Your task to perform on an android device: Is it going to rain tomorrow? Image 0: 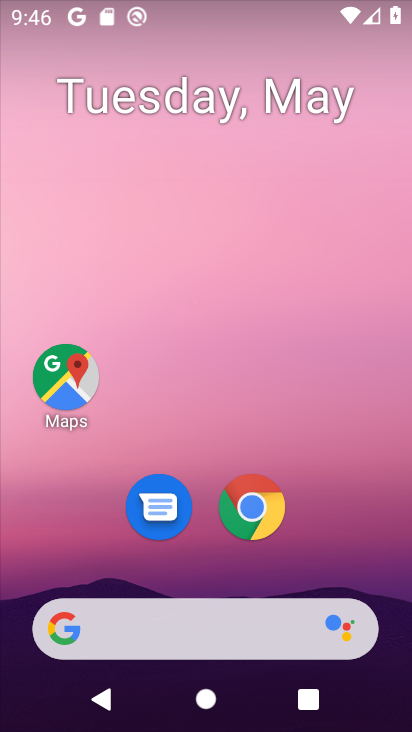
Step 0: click (172, 629)
Your task to perform on an android device: Is it going to rain tomorrow? Image 1: 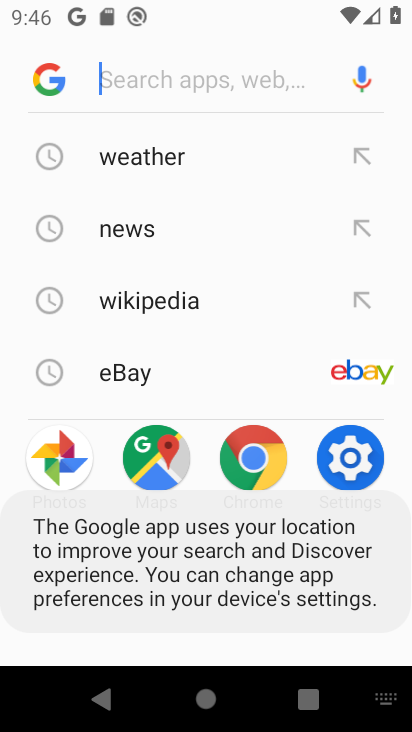
Step 1: click (194, 165)
Your task to perform on an android device: Is it going to rain tomorrow? Image 2: 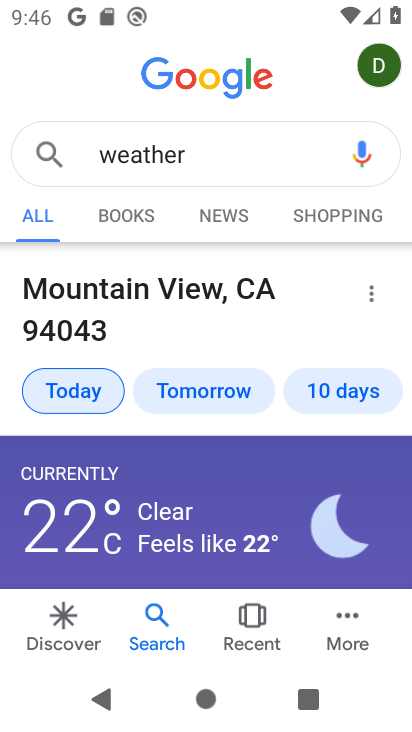
Step 2: click (190, 382)
Your task to perform on an android device: Is it going to rain tomorrow? Image 3: 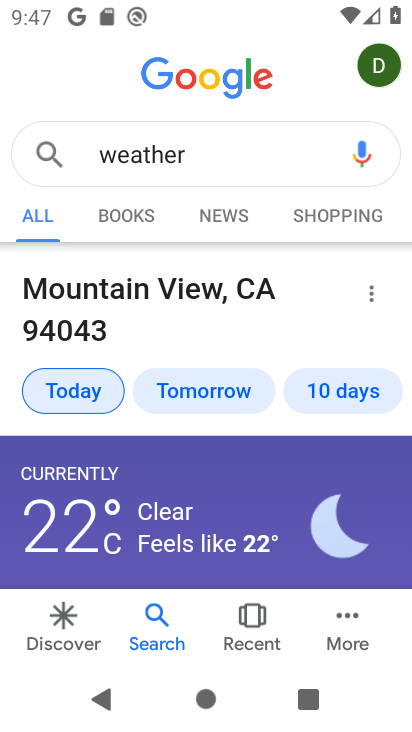
Step 3: click (194, 396)
Your task to perform on an android device: Is it going to rain tomorrow? Image 4: 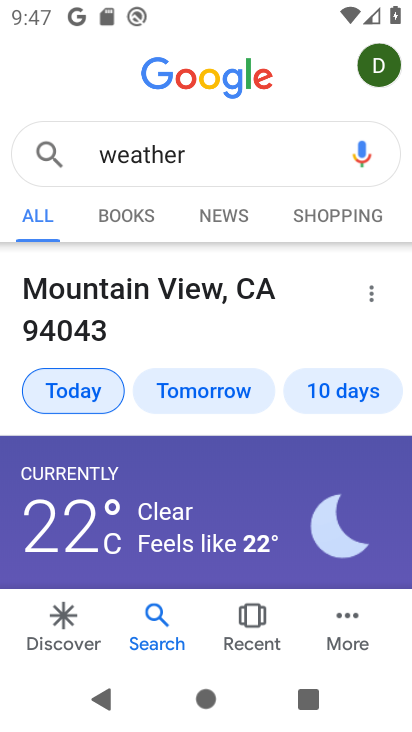
Step 4: click (194, 396)
Your task to perform on an android device: Is it going to rain tomorrow? Image 5: 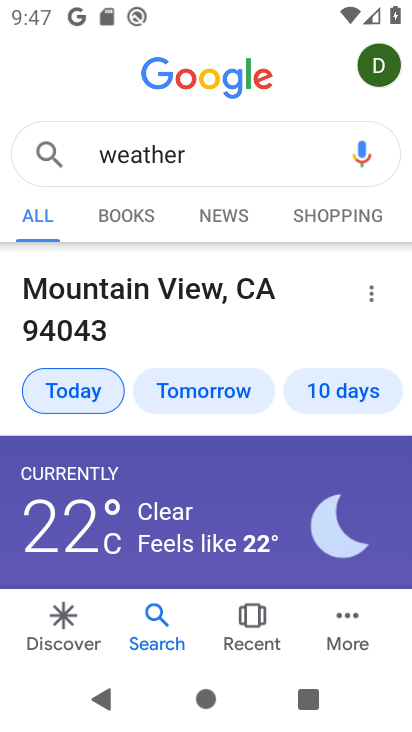
Step 5: click (194, 396)
Your task to perform on an android device: Is it going to rain tomorrow? Image 6: 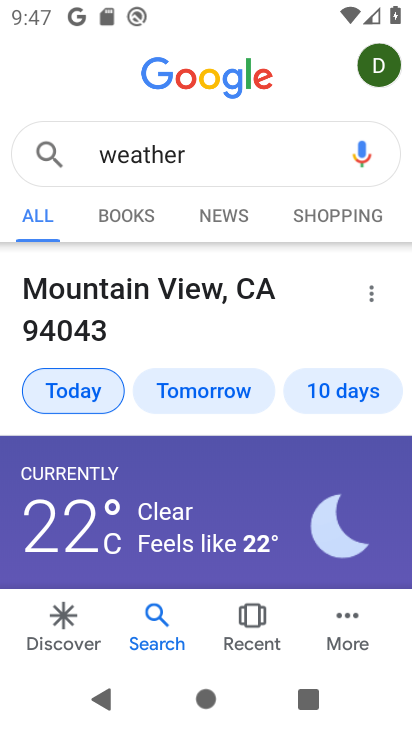
Step 6: click (328, 381)
Your task to perform on an android device: Is it going to rain tomorrow? Image 7: 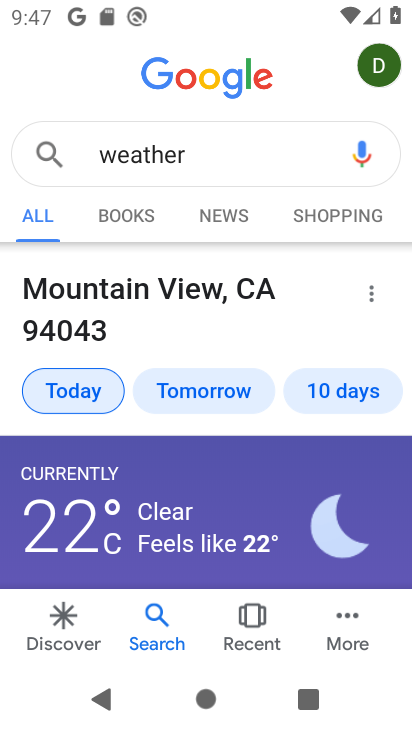
Step 7: drag from (248, 548) to (268, 286)
Your task to perform on an android device: Is it going to rain tomorrow? Image 8: 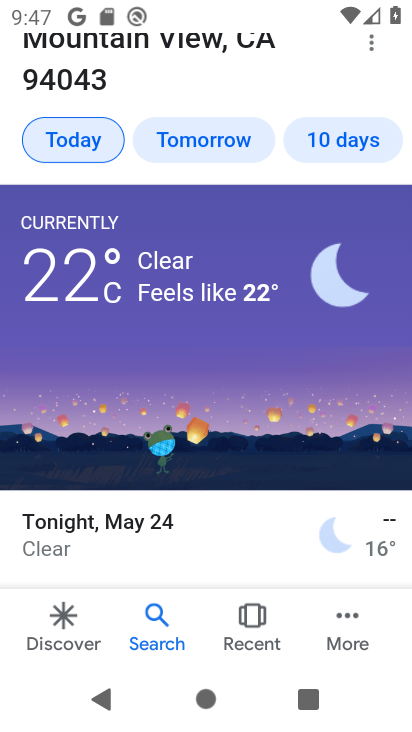
Step 8: click (210, 139)
Your task to perform on an android device: Is it going to rain tomorrow? Image 9: 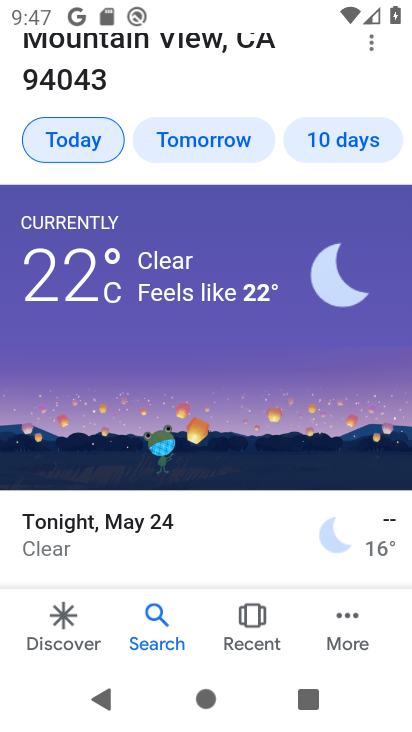
Step 9: click (342, 138)
Your task to perform on an android device: Is it going to rain tomorrow? Image 10: 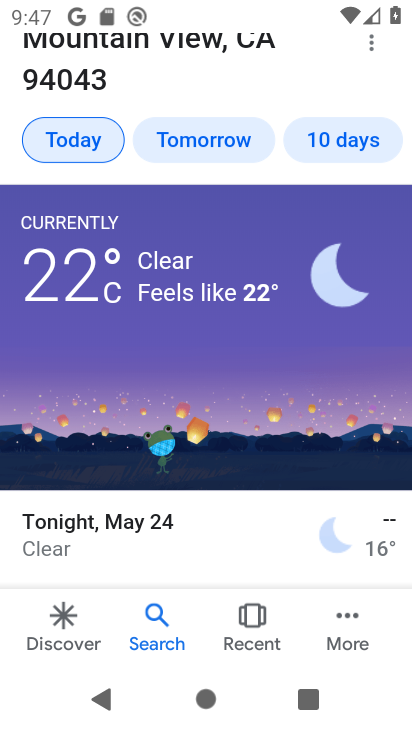
Step 10: click (342, 138)
Your task to perform on an android device: Is it going to rain tomorrow? Image 11: 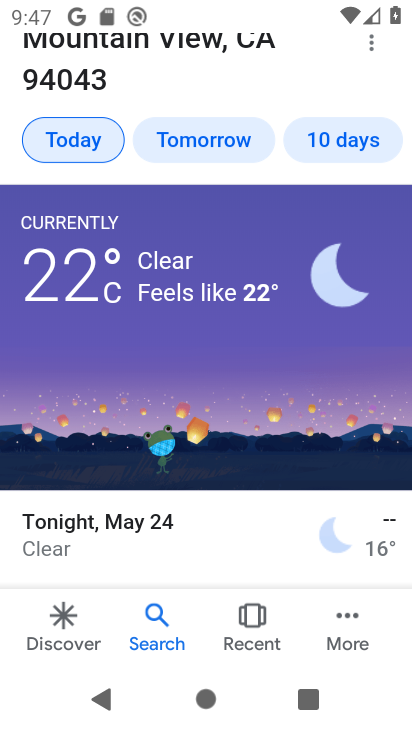
Step 11: task complete